Your task to perform on an android device: Open my contact list Image 0: 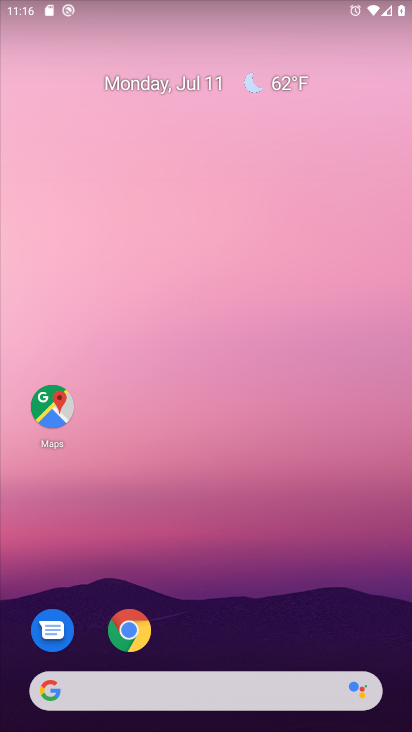
Step 0: drag from (293, 469) to (271, 32)
Your task to perform on an android device: Open my contact list Image 1: 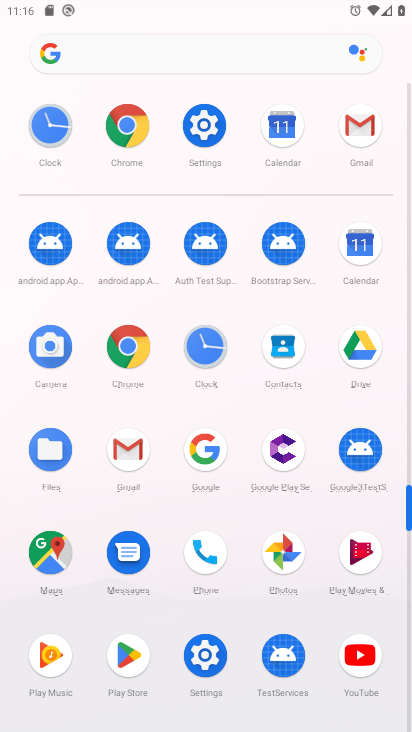
Step 1: click (283, 349)
Your task to perform on an android device: Open my contact list Image 2: 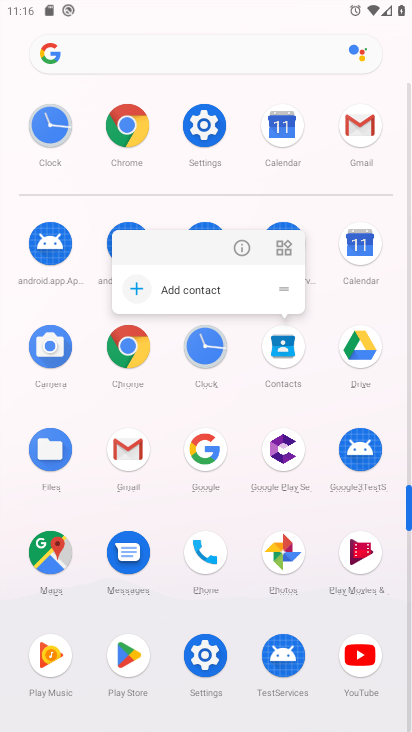
Step 2: click (283, 348)
Your task to perform on an android device: Open my contact list Image 3: 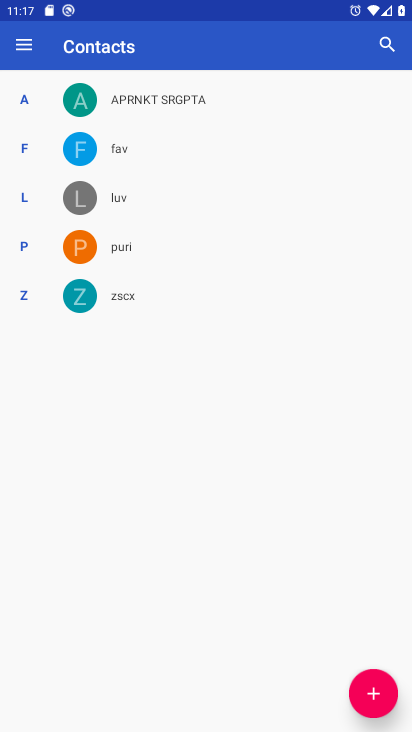
Step 3: task complete